Your task to perform on an android device: Toggle the flashlight Image 0: 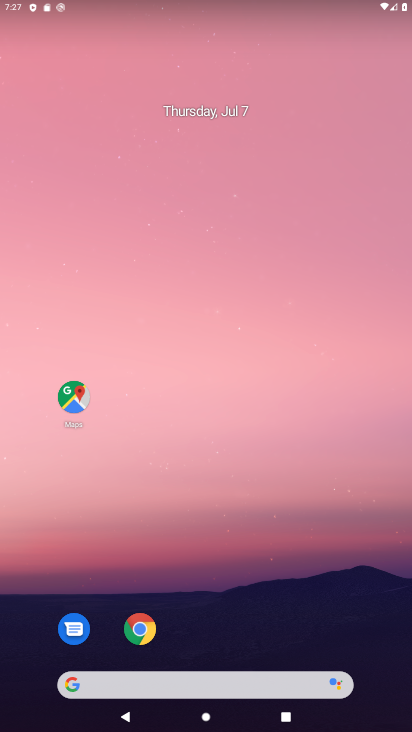
Step 0: drag from (242, 2) to (252, 413)
Your task to perform on an android device: Toggle the flashlight Image 1: 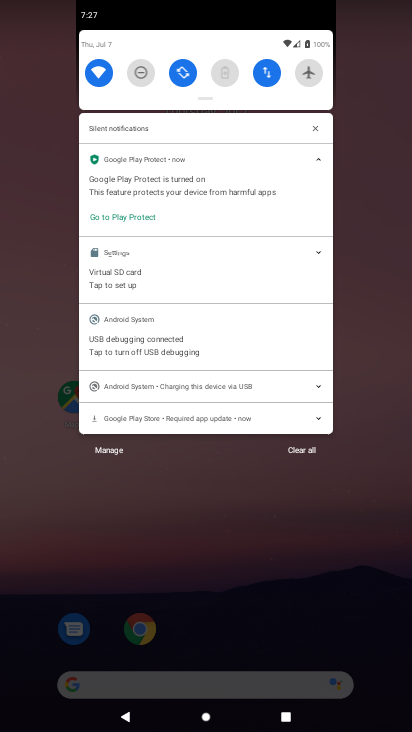
Step 1: drag from (199, 45) to (211, 244)
Your task to perform on an android device: Toggle the flashlight Image 2: 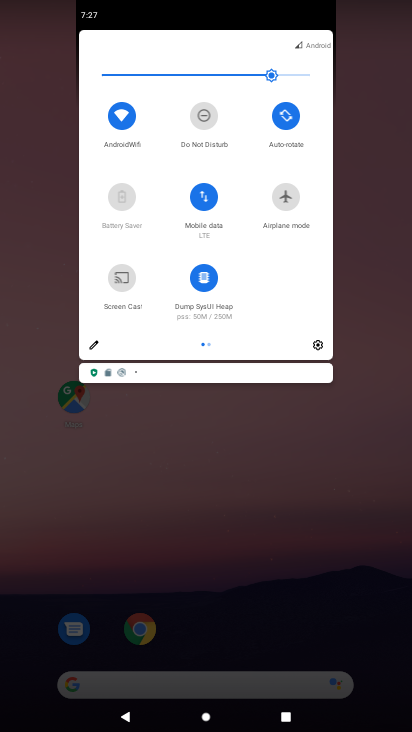
Step 2: click (95, 345)
Your task to perform on an android device: Toggle the flashlight Image 3: 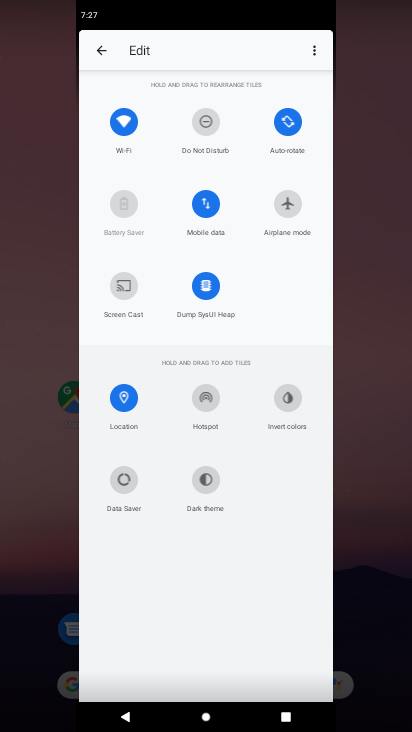
Step 3: task complete